Your task to perform on an android device: clear history in the chrome app Image 0: 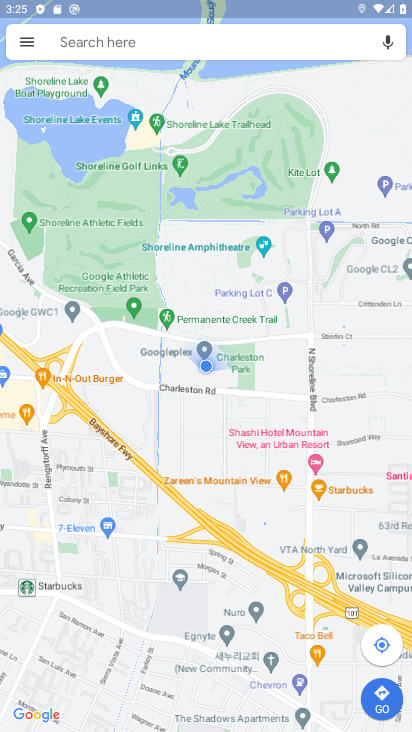
Step 0: press home button
Your task to perform on an android device: clear history in the chrome app Image 1: 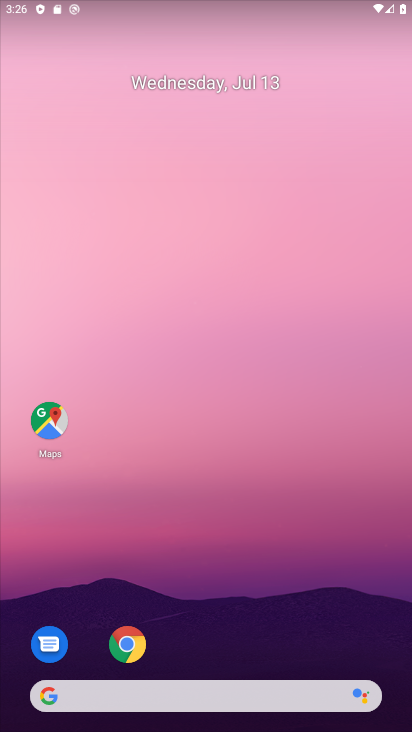
Step 1: click (131, 638)
Your task to perform on an android device: clear history in the chrome app Image 2: 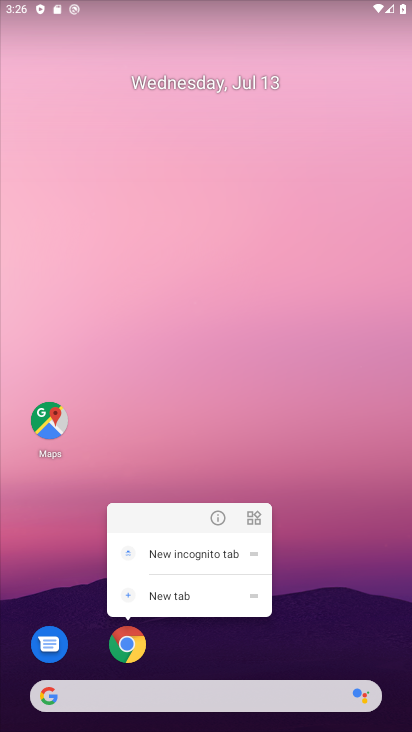
Step 2: click (126, 655)
Your task to perform on an android device: clear history in the chrome app Image 3: 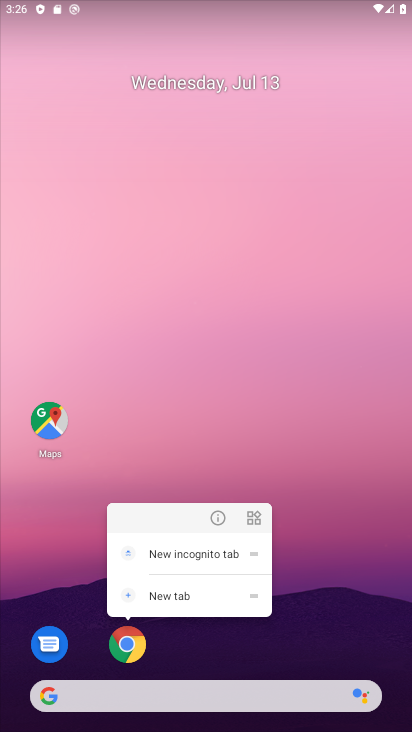
Step 3: click (127, 656)
Your task to perform on an android device: clear history in the chrome app Image 4: 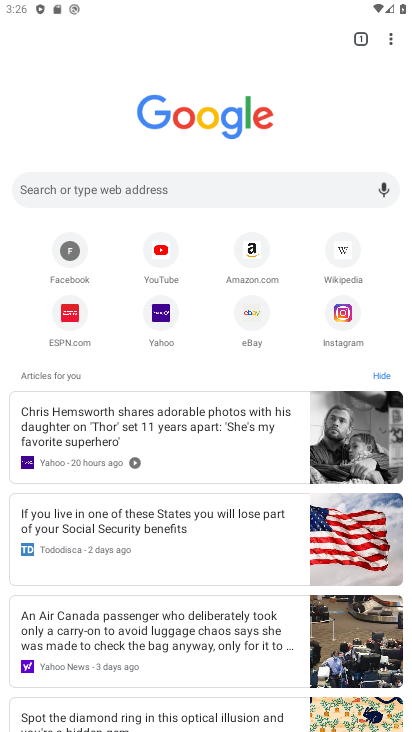
Step 4: click (386, 40)
Your task to perform on an android device: clear history in the chrome app Image 5: 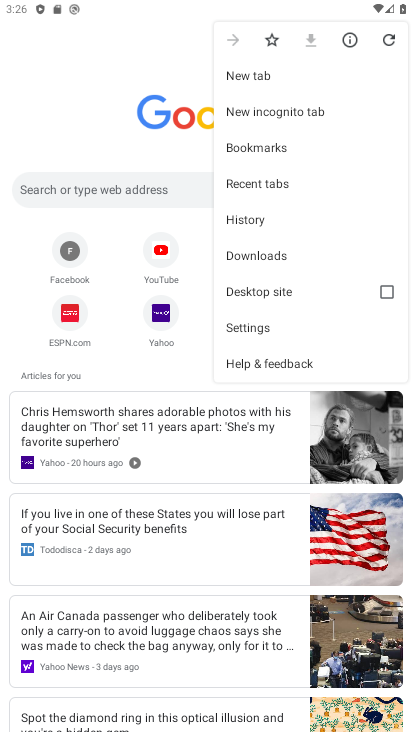
Step 5: click (252, 217)
Your task to perform on an android device: clear history in the chrome app Image 6: 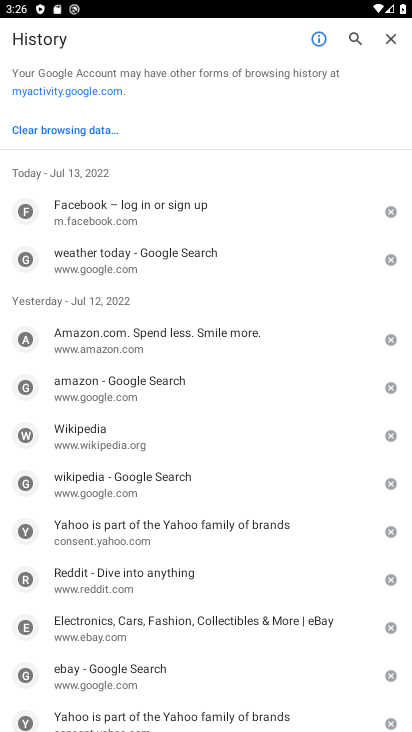
Step 6: click (117, 128)
Your task to perform on an android device: clear history in the chrome app Image 7: 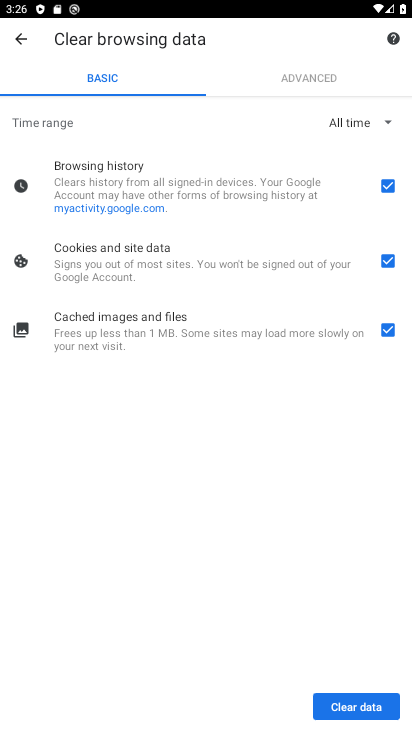
Step 7: click (342, 710)
Your task to perform on an android device: clear history in the chrome app Image 8: 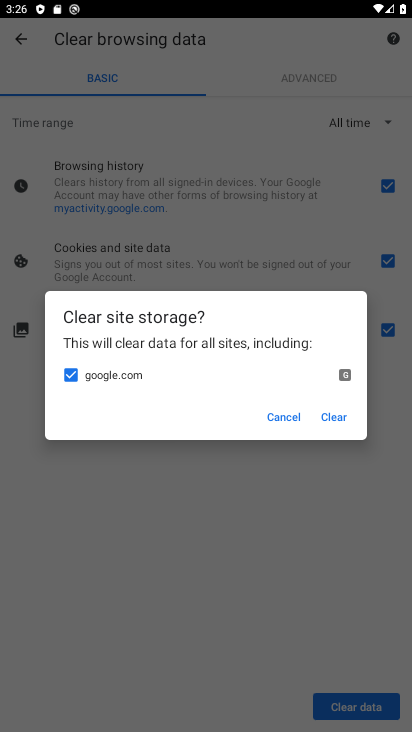
Step 8: click (331, 410)
Your task to perform on an android device: clear history in the chrome app Image 9: 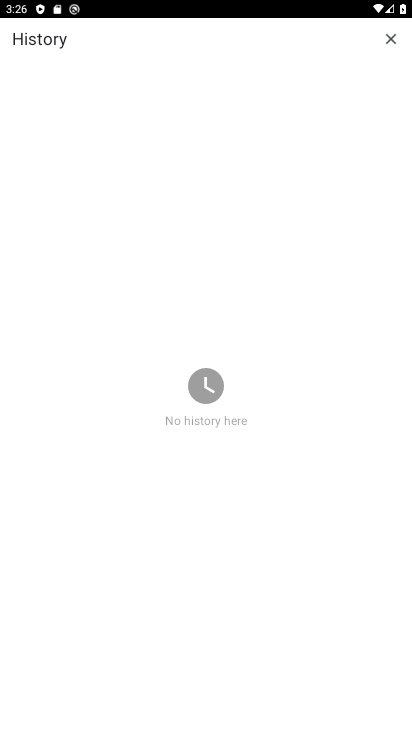
Step 9: task complete